Your task to perform on an android device: set an alarm Image 0: 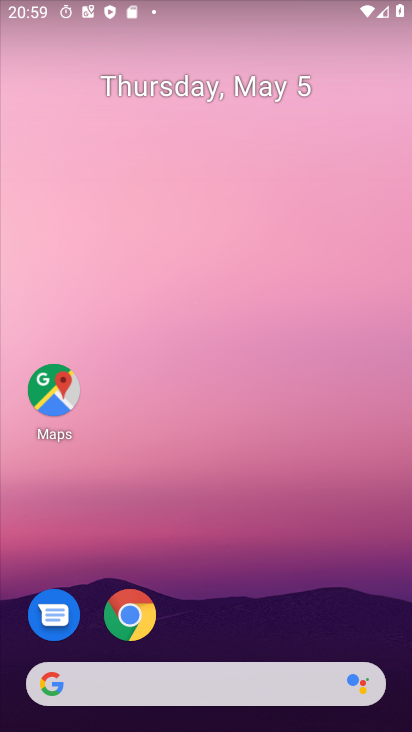
Step 0: drag from (234, 637) to (144, 20)
Your task to perform on an android device: set an alarm Image 1: 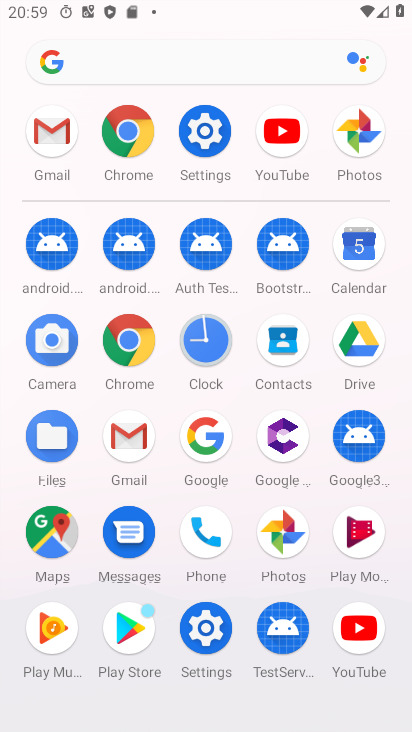
Step 1: click (197, 359)
Your task to perform on an android device: set an alarm Image 2: 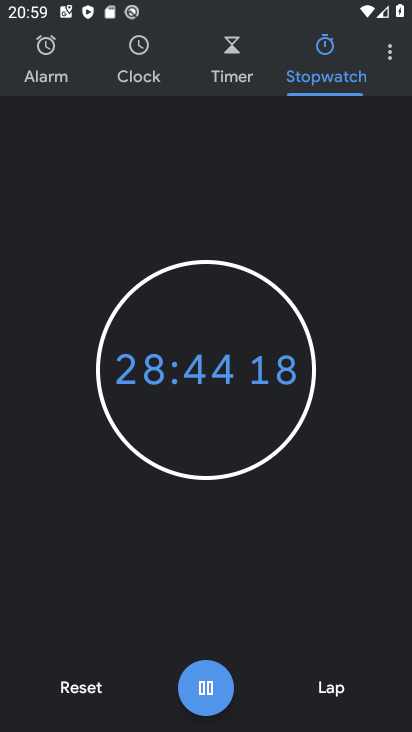
Step 2: click (96, 694)
Your task to perform on an android device: set an alarm Image 3: 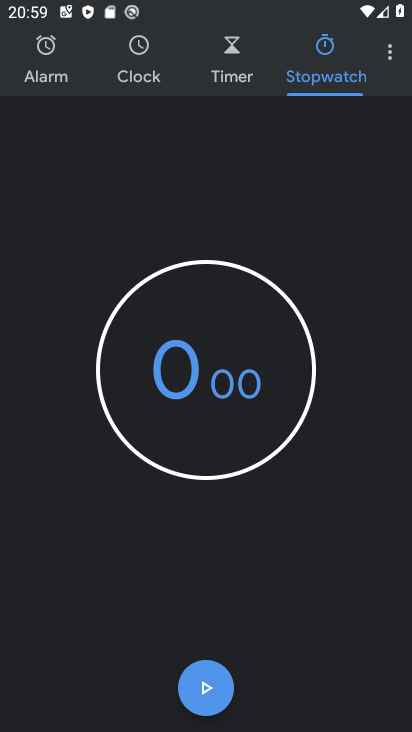
Step 3: click (58, 63)
Your task to perform on an android device: set an alarm Image 4: 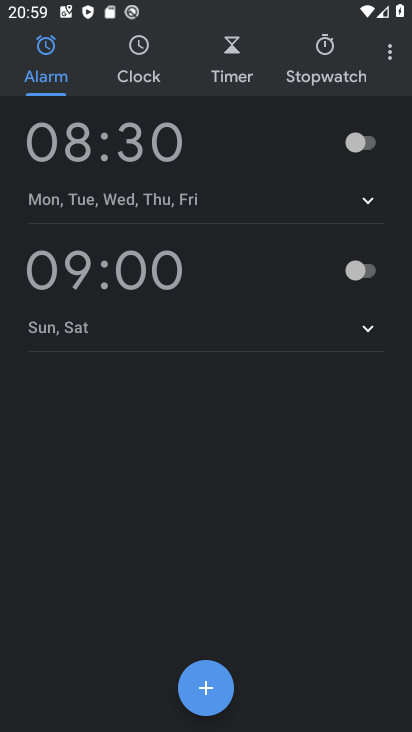
Step 4: click (375, 144)
Your task to perform on an android device: set an alarm Image 5: 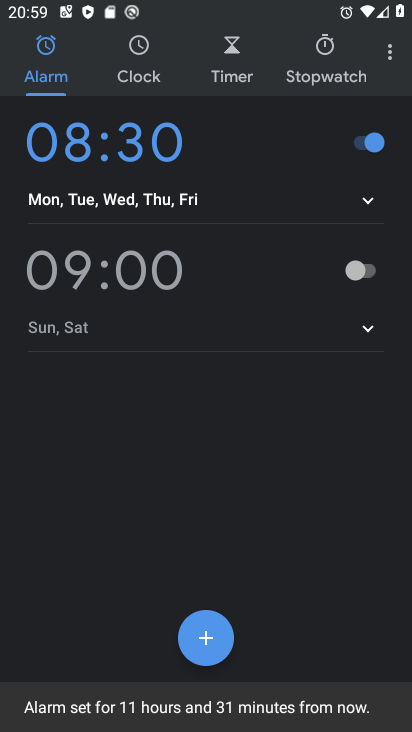
Step 5: click (367, 199)
Your task to perform on an android device: set an alarm Image 6: 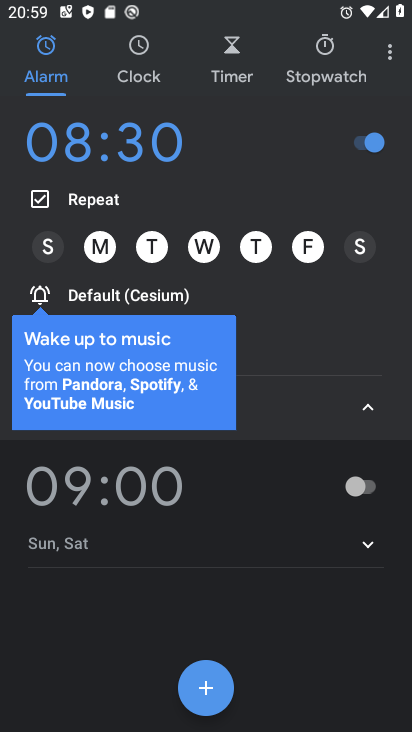
Step 6: task complete